Your task to perform on an android device: toggle notification dots Image 0: 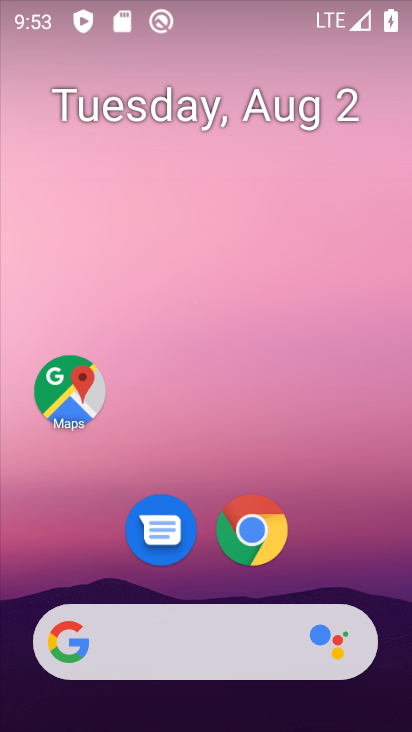
Step 0: drag from (336, 565) to (394, 53)
Your task to perform on an android device: toggle notification dots Image 1: 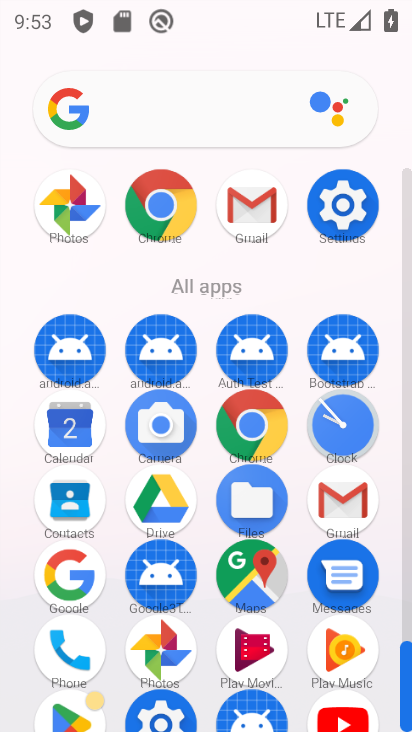
Step 1: click (352, 193)
Your task to perform on an android device: toggle notification dots Image 2: 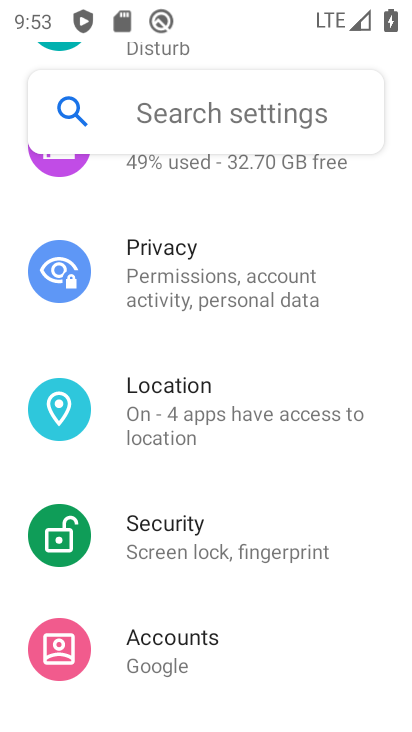
Step 2: drag from (279, 213) to (270, 651)
Your task to perform on an android device: toggle notification dots Image 3: 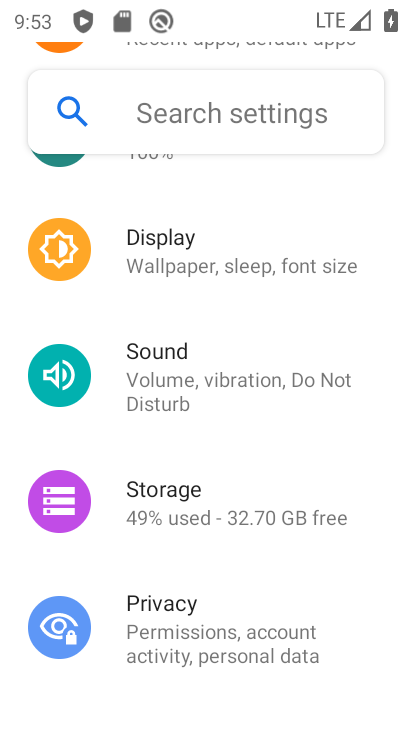
Step 3: drag from (230, 204) to (214, 670)
Your task to perform on an android device: toggle notification dots Image 4: 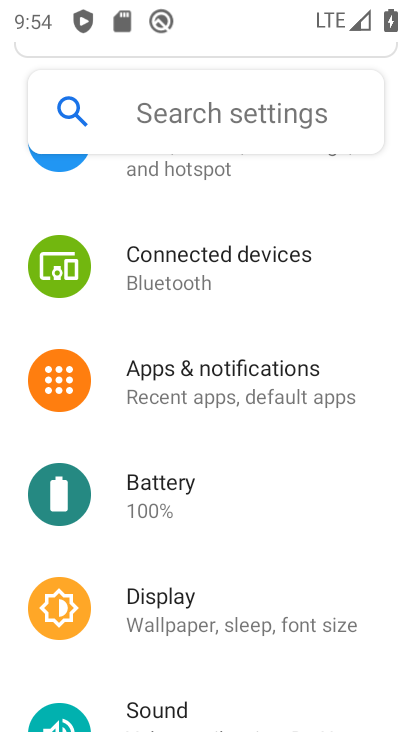
Step 4: click (234, 377)
Your task to perform on an android device: toggle notification dots Image 5: 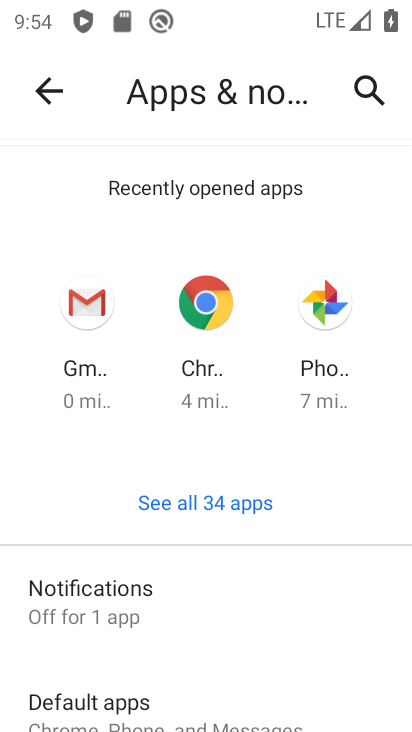
Step 5: click (88, 608)
Your task to perform on an android device: toggle notification dots Image 6: 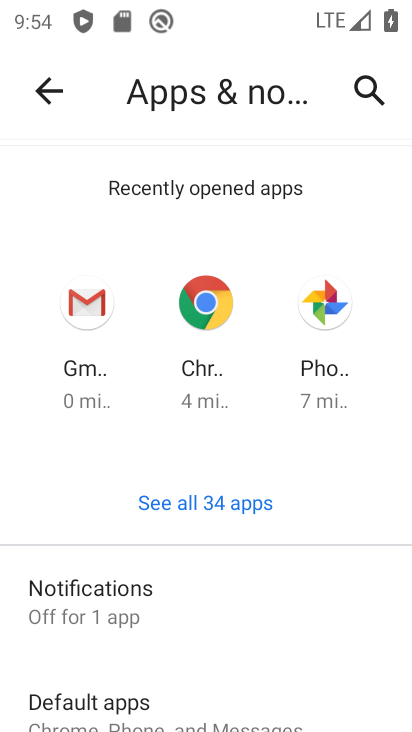
Step 6: drag from (256, 678) to (314, 124)
Your task to perform on an android device: toggle notification dots Image 7: 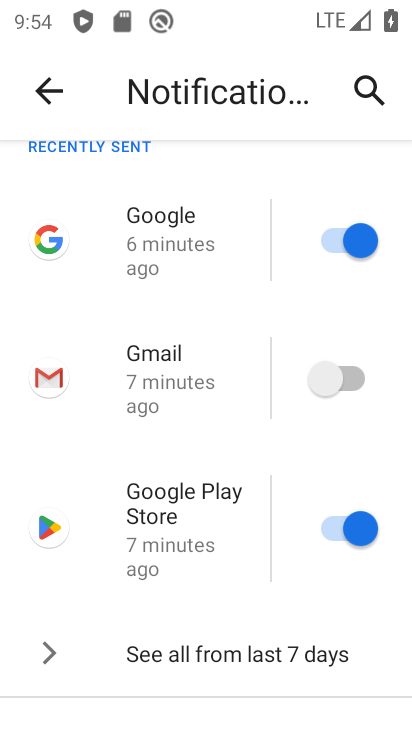
Step 7: drag from (180, 520) to (177, 73)
Your task to perform on an android device: toggle notification dots Image 8: 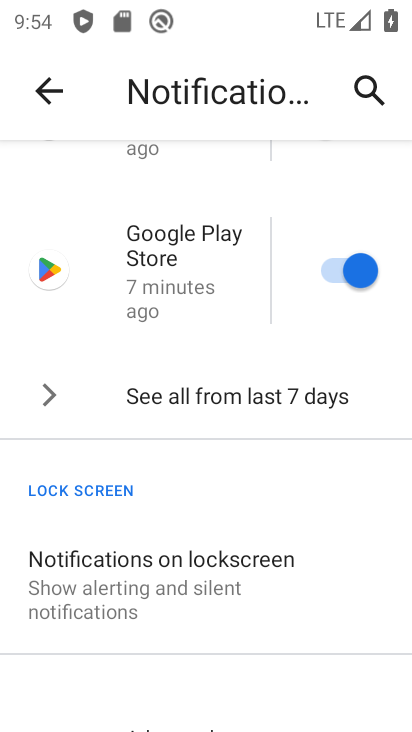
Step 8: drag from (239, 561) to (181, 174)
Your task to perform on an android device: toggle notification dots Image 9: 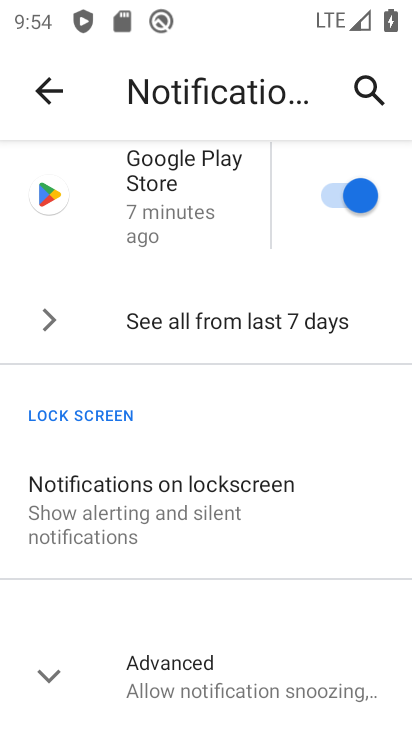
Step 9: click (167, 650)
Your task to perform on an android device: toggle notification dots Image 10: 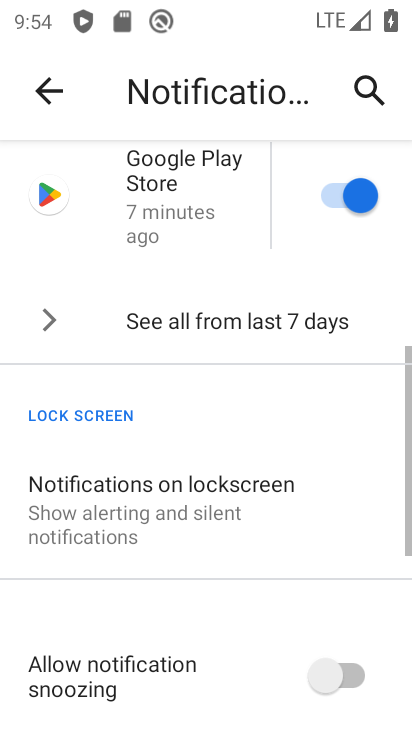
Step 10: drag from (163, 670) to (169, 243)
Your task to perform on an android device: toggle notification dots Image 11: 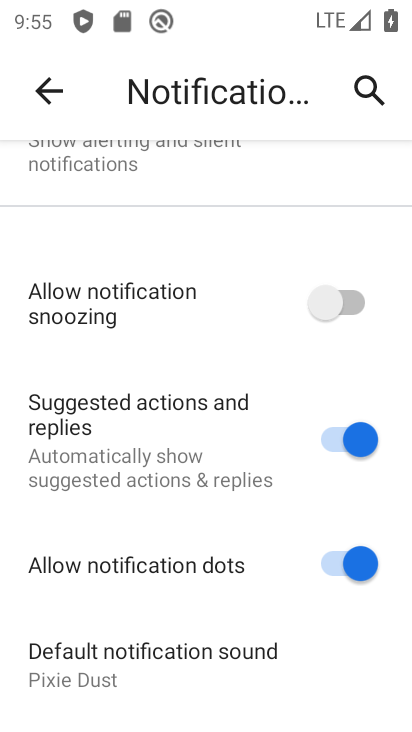
Step 11: click (102, 576)
Your task to perform on an android device: toggle notification dots Image 12: 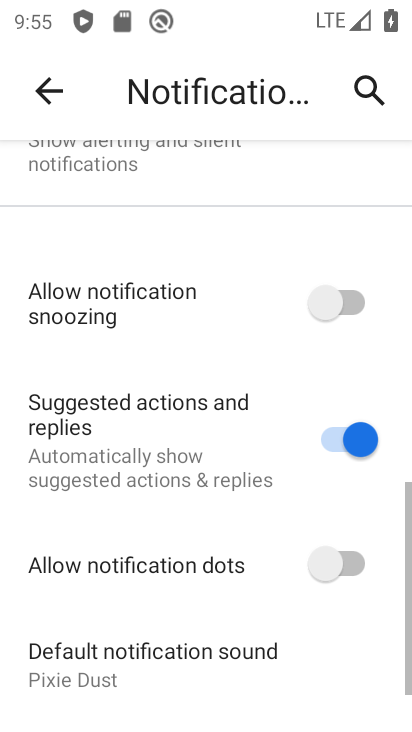
Step 12: task complete